Your task to perform on an android device: Show me the alarms in the clock app Image 0: 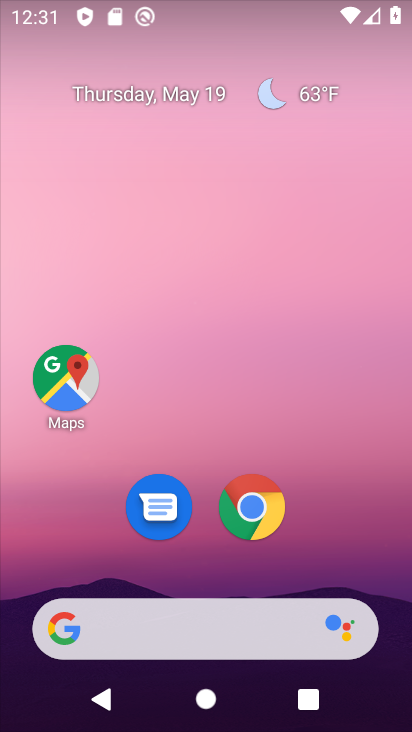
Step 0: drag from (197, 603) to (215, 166)
Your task to perform on an android device: Show me the alarms in the clock app Image 1: 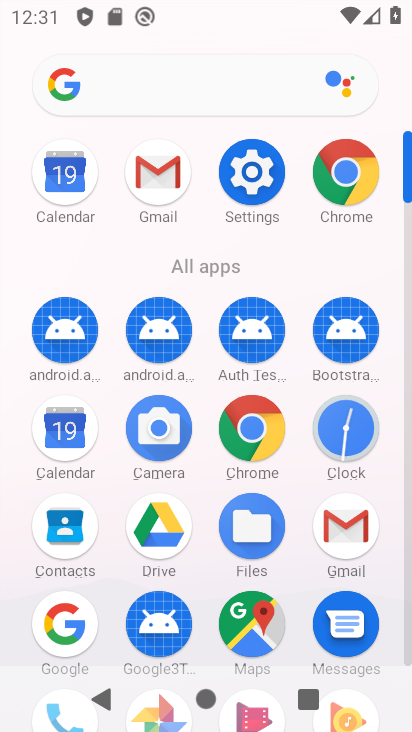
Step 1: click (342, 438)
Your task to perform on an android device: Show me the alarms in the clock app Image 2: 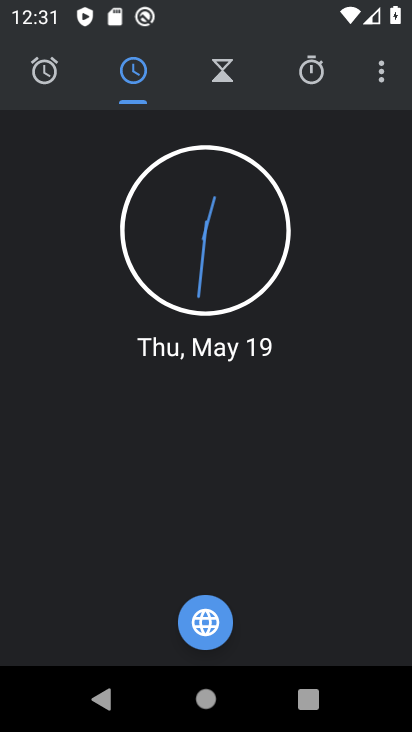
Step 2: click (30, 57)
Your task to perform on an android device: Show me the alarms in the clock app Image 3: 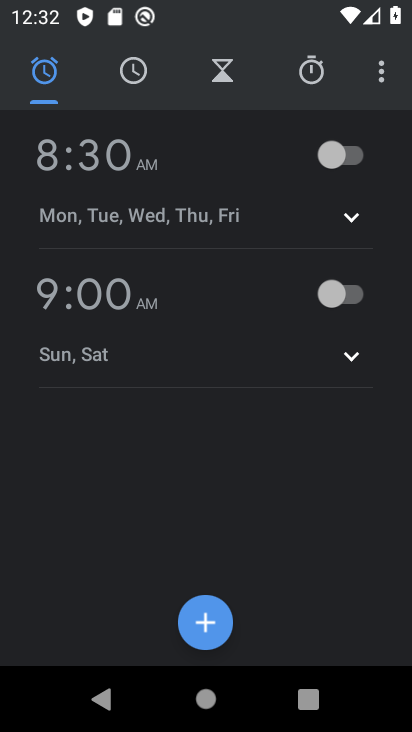
Step 3: task complete